Your task to perform on an android device: What is the recent news? Image 0: 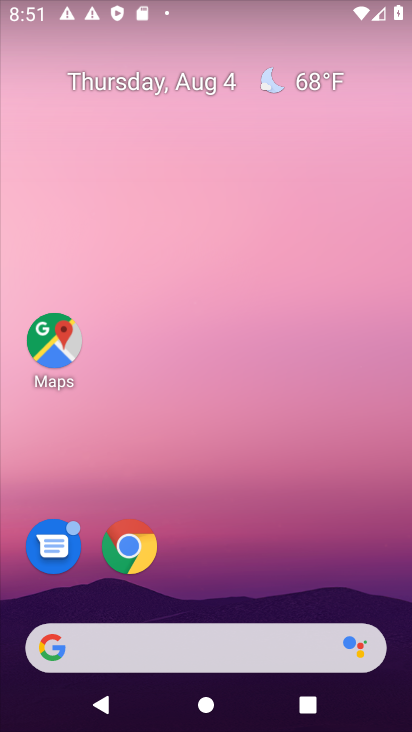
Step 0: press home button
Your task to perform on an android device: What is the recent news? Image 1: 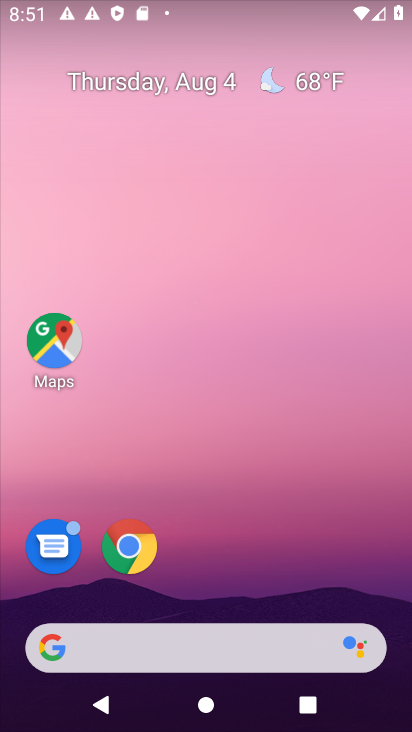
Step 1: click (47, 656)
Your task to perform on an android device: What is the recent news? Image 2: 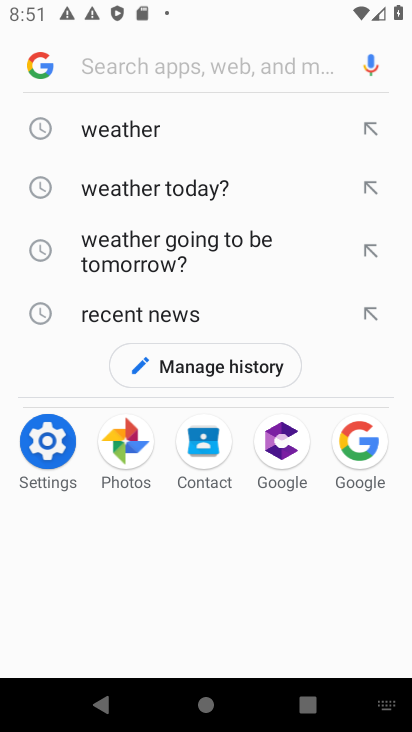
Step 2: click (137, 319)
Your task to perform on an android device: What is the recent news? Image 3: 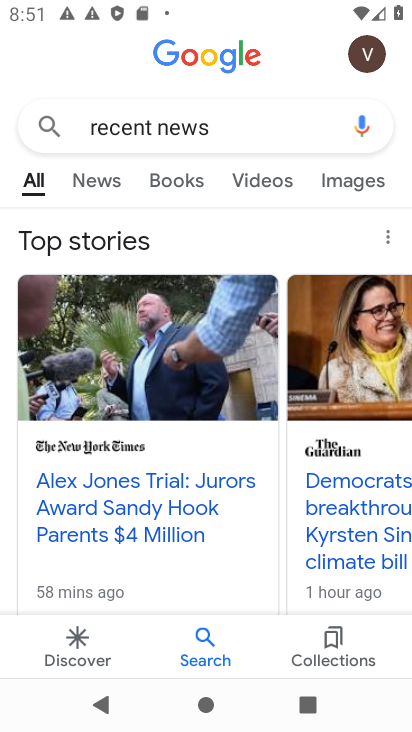
Step 3: task complete